Your task to perform on an android device: Go to privacy settings Image 0: 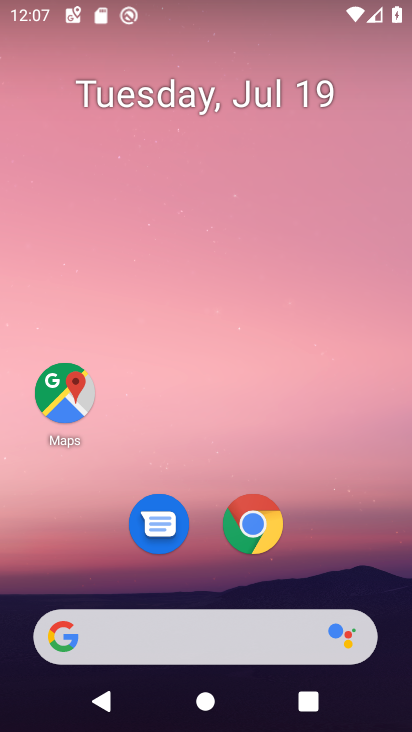
Step 0: drag from (309, 509) to (291, 24)
Your task to perform on an android device: Go to privacy settings Image 1: 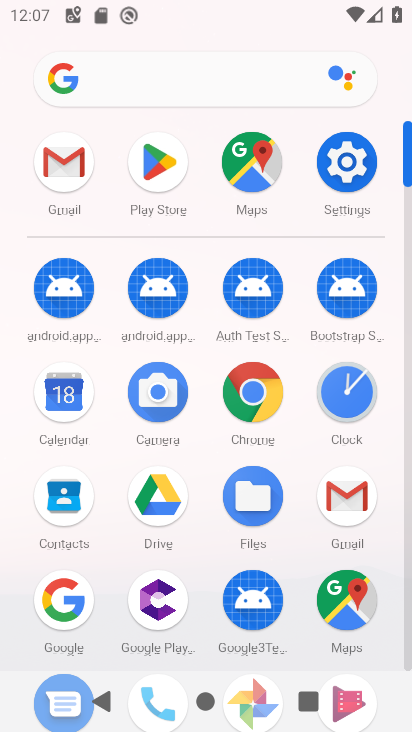
Step 1: click (354, 146)
Your task to perform on an android device: Go to privacy settings Image 2: 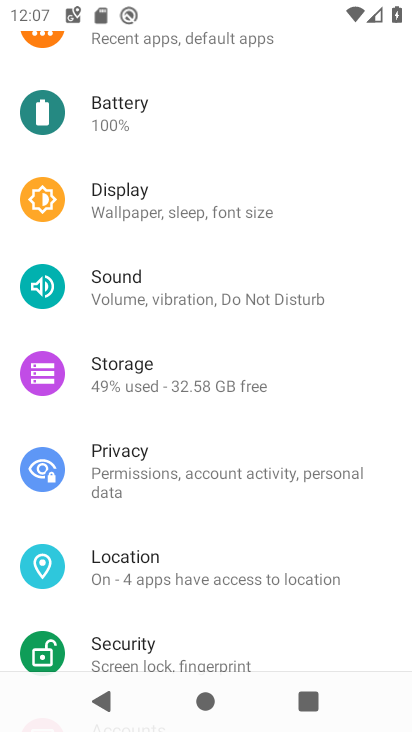
Step 2: click (194, 460)
Your task to perform on an android device: Go to privacy settings Image 3: 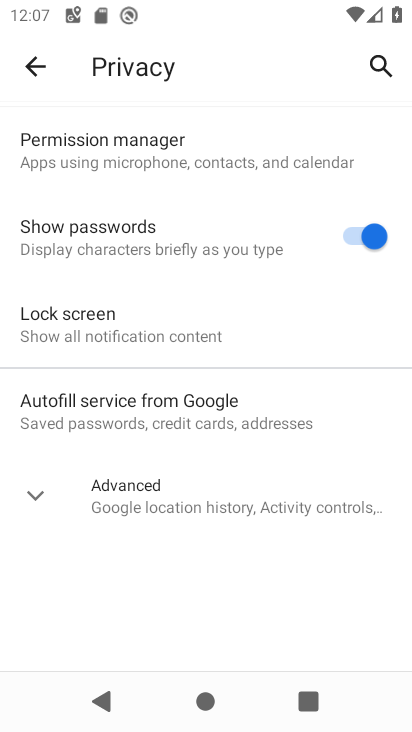
Step 3: task complete